Your task to perform on an android device: Open location settings Image 0: 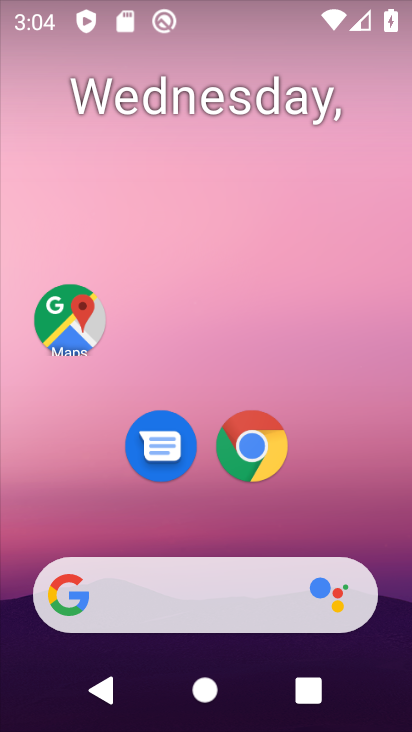
Step 0: drag from (209, 510) to (178, 83)
Your task to perform on an android device: Open location settings Image 1: 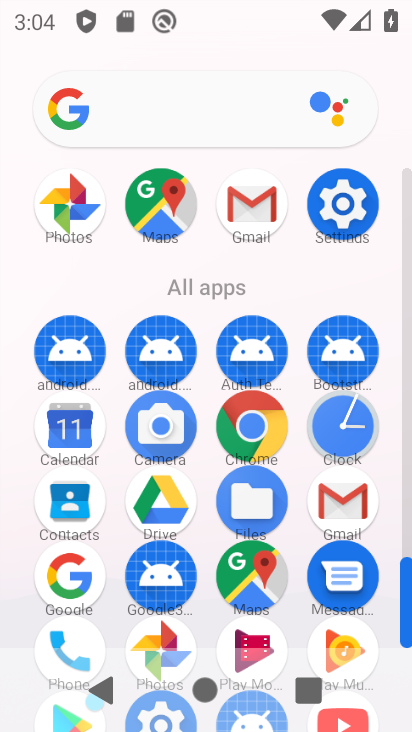
Step 1: click (340, 202)
Your task to perform on an android device: Open location settings Image 2: 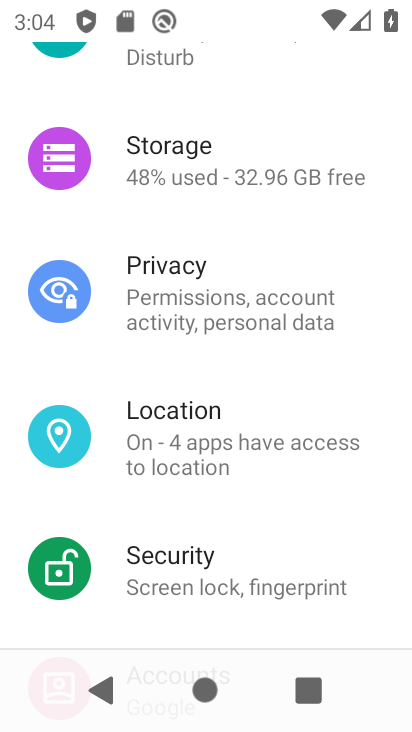
Step 2: click (169, 424)
Your task to perform on an android device: Open location settings Image 3: 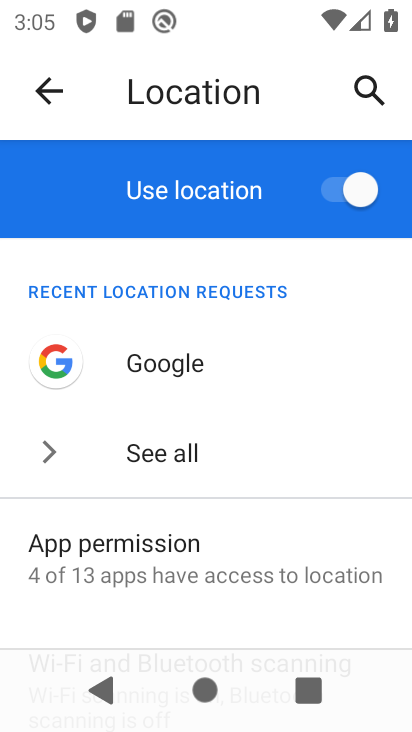
Step 3: task complete